Your task to perform on an android device: turn on airplane mode Image 0: 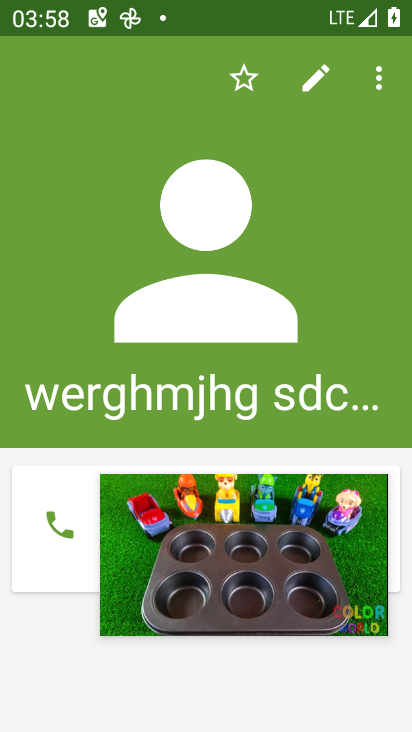
Step 0: press back button
Your task to perform on an android device: turn on airplane mode Image 1: 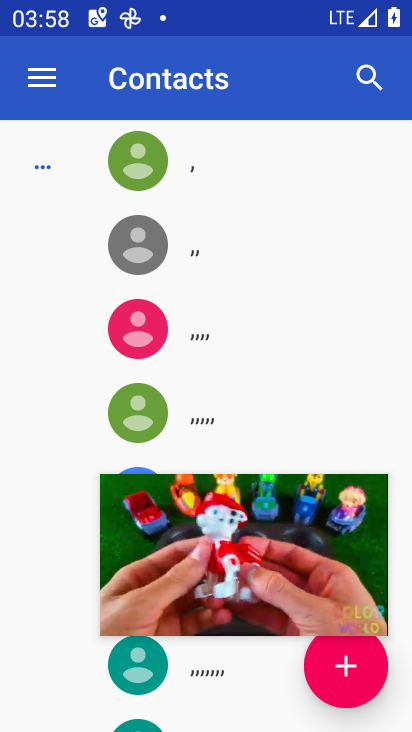
Step 1: press home button
Your task to perform on an android device: turn on airplane mode Image 2: 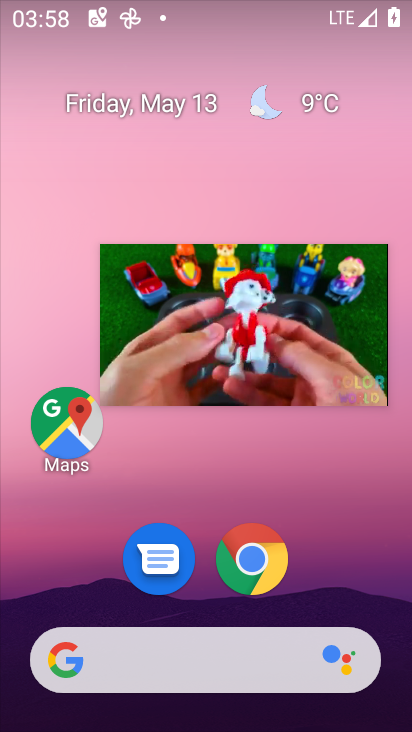
Step 2: click (388, 228)
Your task to perform on an android device: turn on airplane mode Image 3: 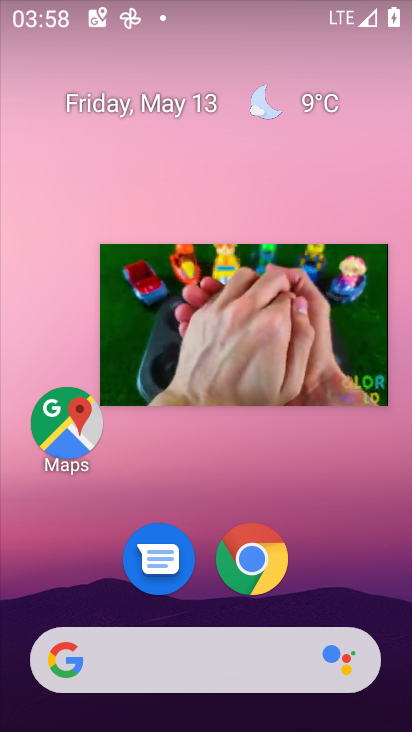
Step 3: drag from (412, 619) to (411, 103)
Your task to perform on an android device: turn on airplane mode Image 4: 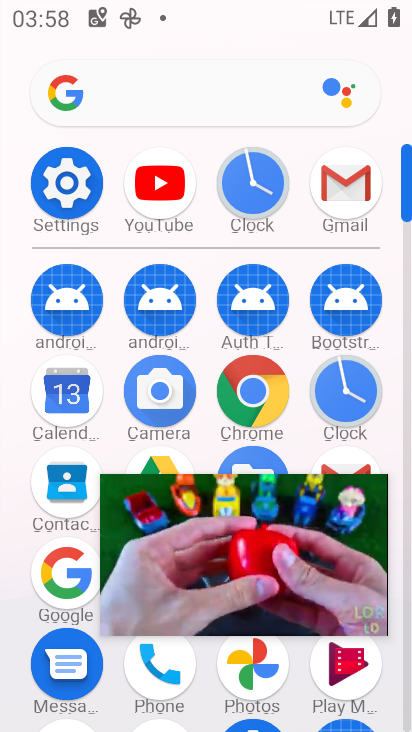
Step 4: click (62, 156)
Your task to perform on an android device: turn on airplane mode Image 5: 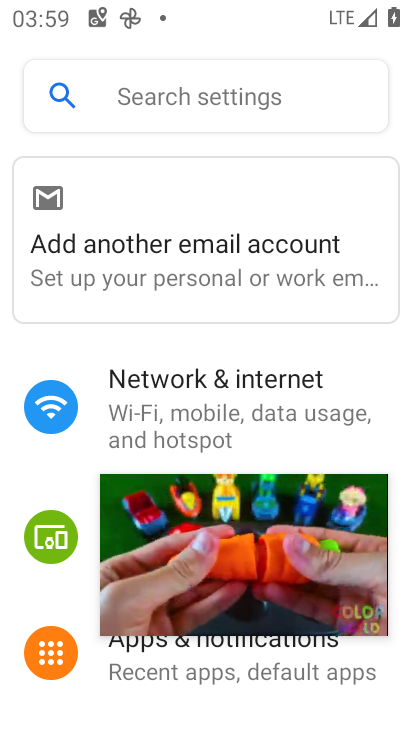
Step 5: click (188, 390)
Your task to perform on an android device: turn on airplane mode Image 6: 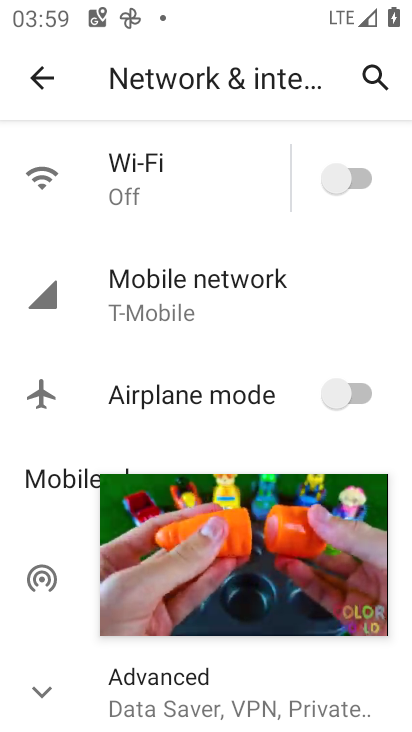
Step 6: click (367, 387)
Your task to perform on an android device: turn on airplane mode Image 7: 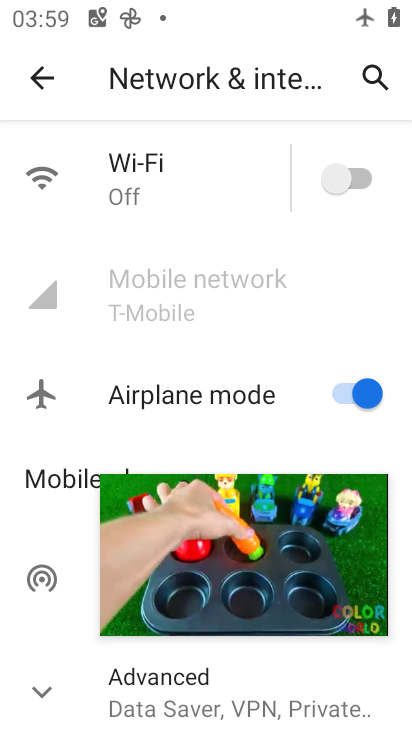
Step 7: task complete